Your task to perform on an android device: delete location history Image 0: 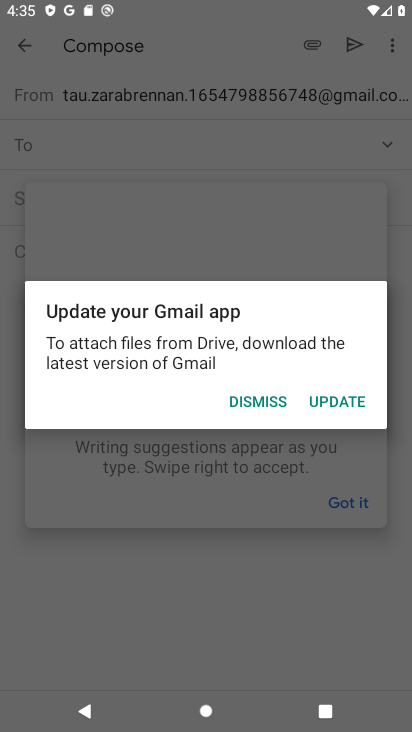
Step 0: press home button
Your task to perform on an android device: delete location history Image 1: 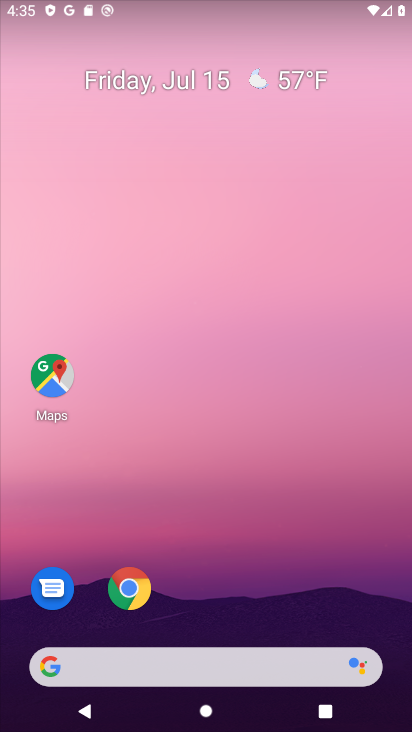
Step 1: drag from (286, 586) to (255, 208)
Your task to perform on an android device: delete location history Image 2: 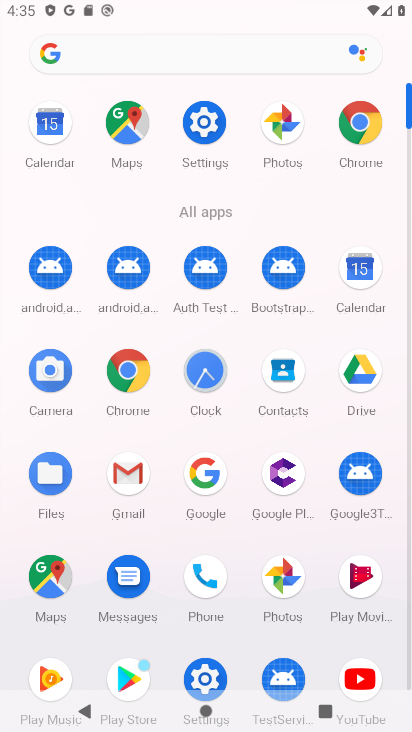
Step 2: click (47, 570)
Your task to perform on an android device: delete location history Image 3: 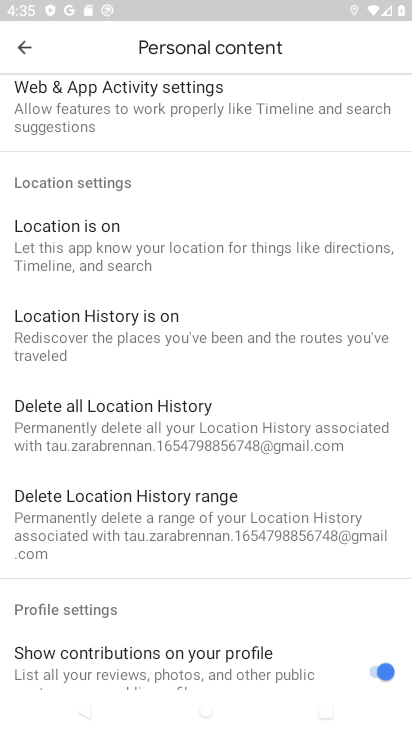
Step 3: click (111, 418)
Your task to perform on an android device: delete location history Image 4: 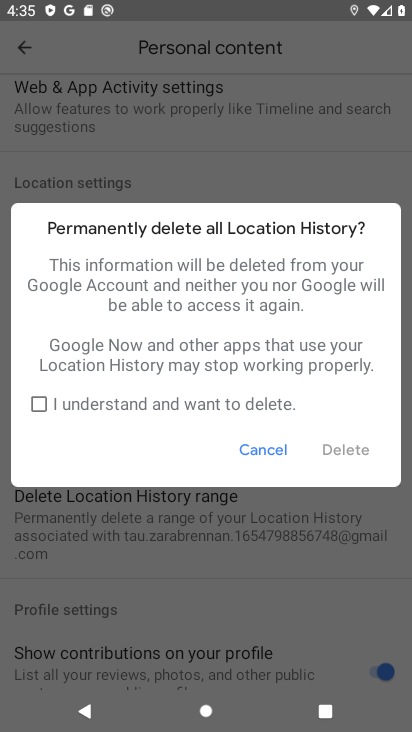
Step 4: click (32, 401)
Your task to perform on an android device: delete location history Image 5: 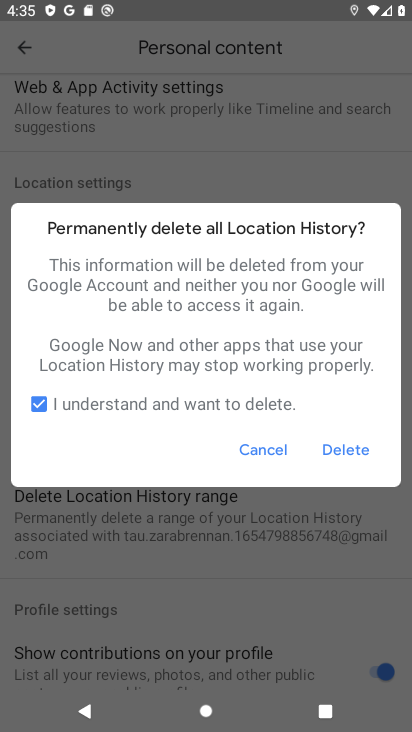
Step 5: click (350, 439)
Your task to perform on an android device: delete location history Image 6: 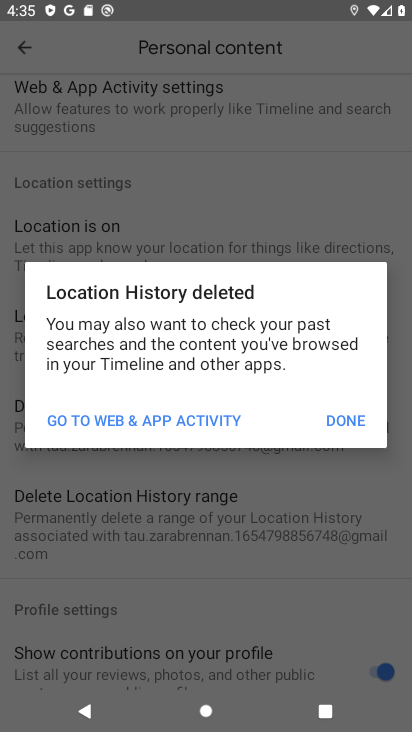
Step 6: click (357, 417)
Your task to perform on an android device: delete location history Image 7: 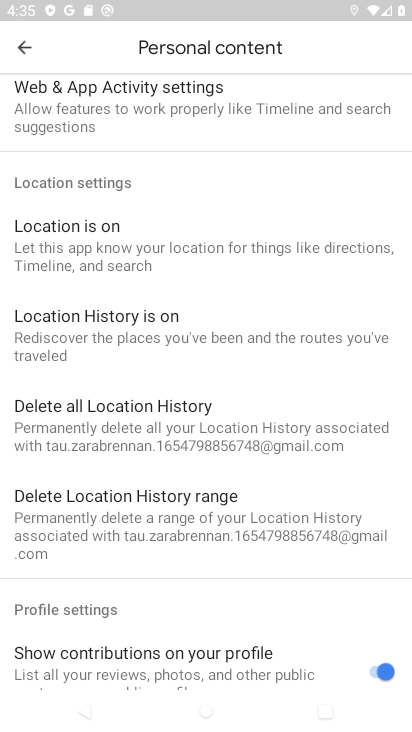
Step 7: task complete